Your task to perform on an android device: Check the weather Image 0: 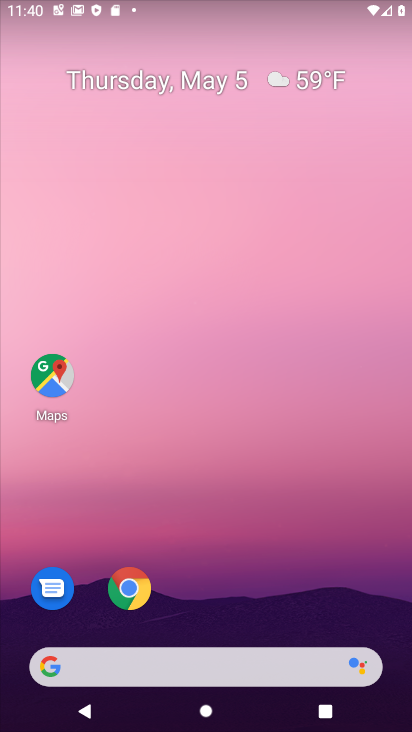
Step 0: click (306, 77)
Your task to perform on an android device: Check the weather Image 1: 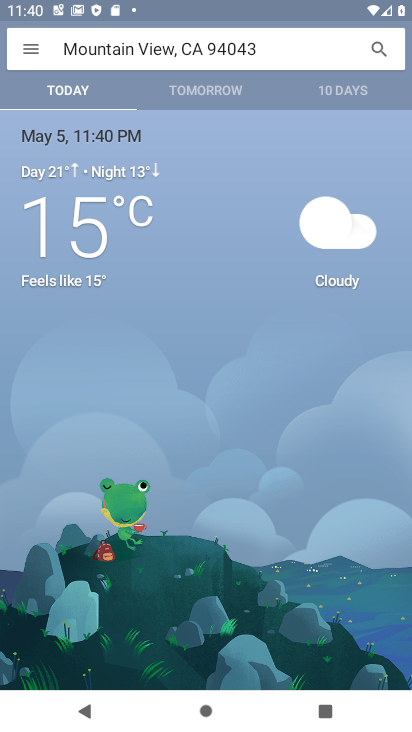
Step 1: task complete